Your task to perform on an android device: Open maps Image 0: 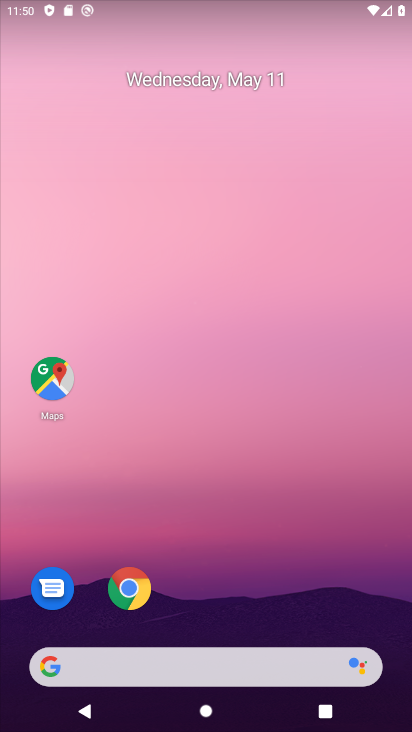
Step 0: click (44, 380)
Your task to perform on an android device: Open maps Image 1: 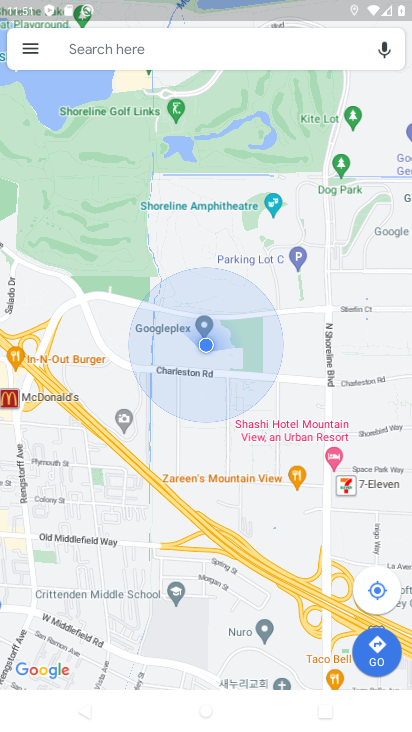
Step 1: task complete